Your task to perform on an android device: toggle sleep mode Image 0: 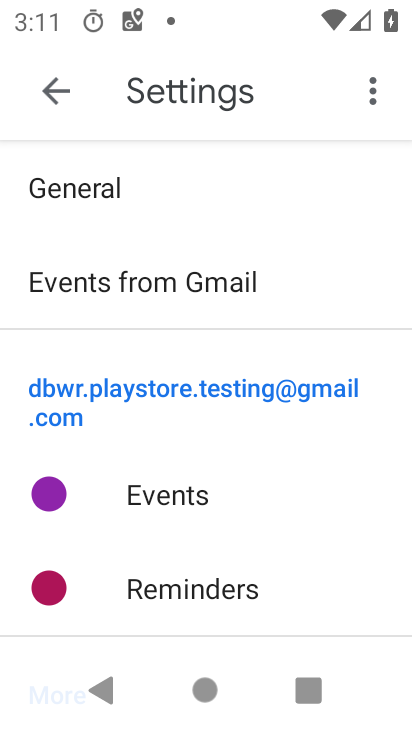
Step 0: press home button
Your task to perform on an android device: toggle sleep mode Image 1: 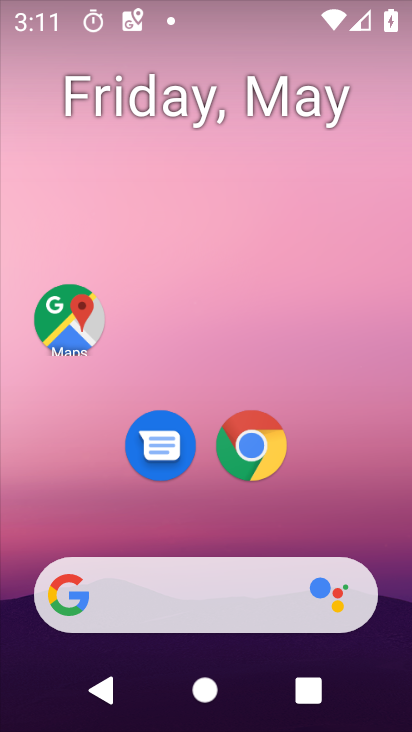
Step 1: drag from (187, 640) to (240, 233)
Your task to perform on an android device: toggle sleep mode Image 2: 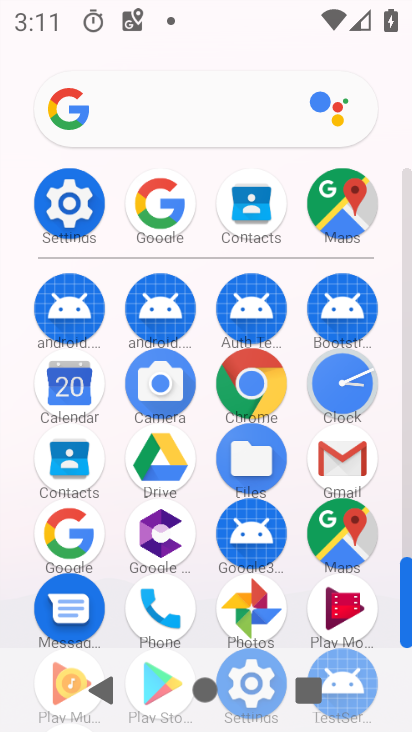
Step 2: click (72, 212)
Your task to perform on an android device: toggle sleep mode Image 3: 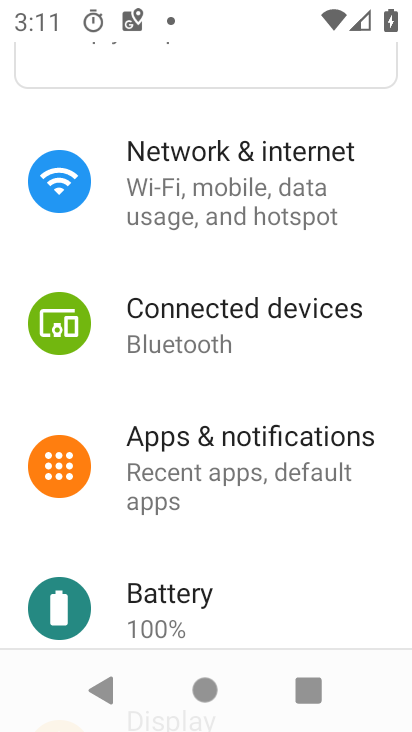
Step 3: drag from (231, 509) to (268, 164)
Your task to perform on an android device: toggle sleep mode Image 4: 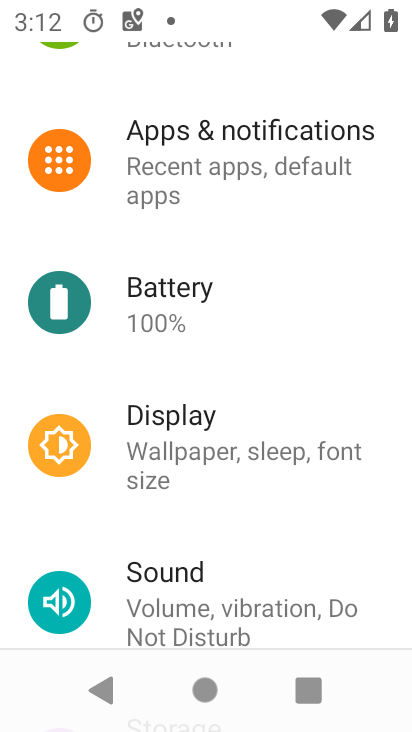
Step 4: drag from (234, 563) to (270, 226)
Your task to perform on an android device: toggle sleep mode Image 5: 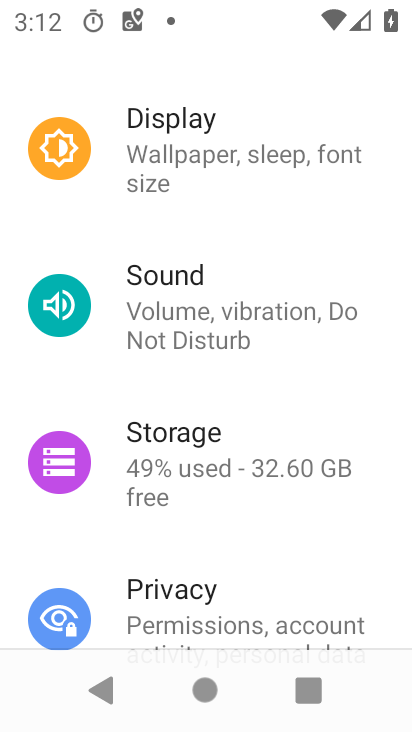
Step 5: drag from (220, 500) to (254, 198)
Your task to perform on an android device: toggle sleep mode Image 6: 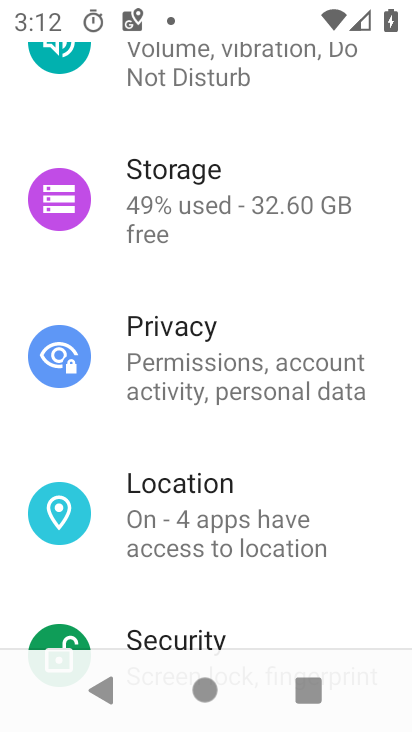
Step 6: drag from (223, 383) to (207, 711)
Your task to perform on an android device: toggle sleep mode Image 7: 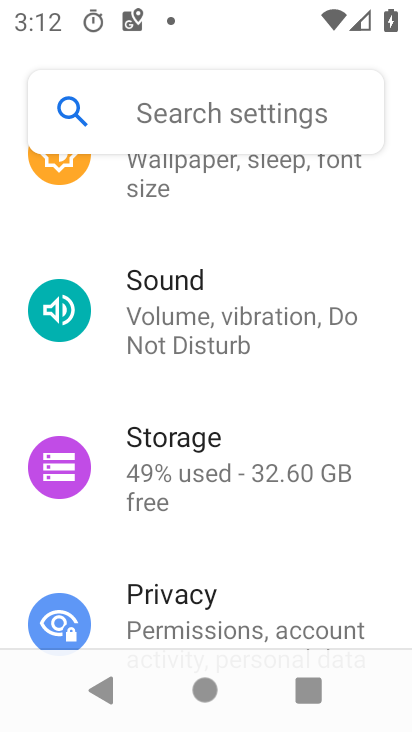
Step 7: drag from (230, 449) to (225, 724)
Your task to perform on an android device: toggle sleep mode Image 8: 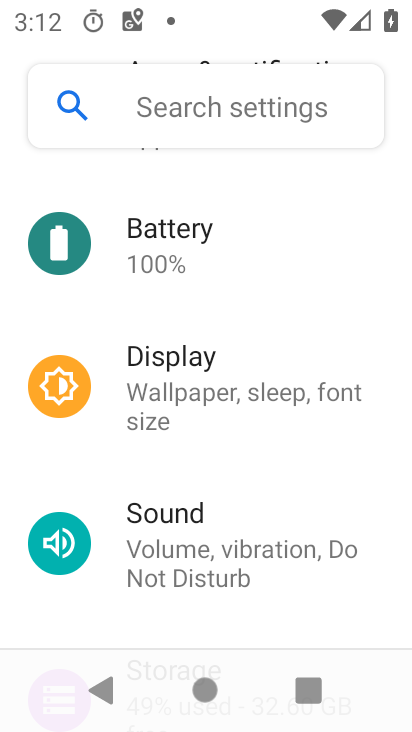
Step 8: click (205, 403)
Your task to perform on an android device: toggle sleep mode Image 9: 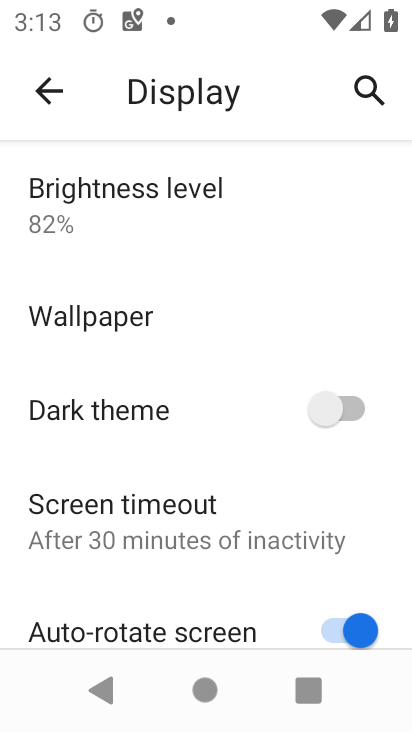
Step 9: task complete